Your task to perform on an android device: read, delete, or share a saved page in the chrome app Image 0: 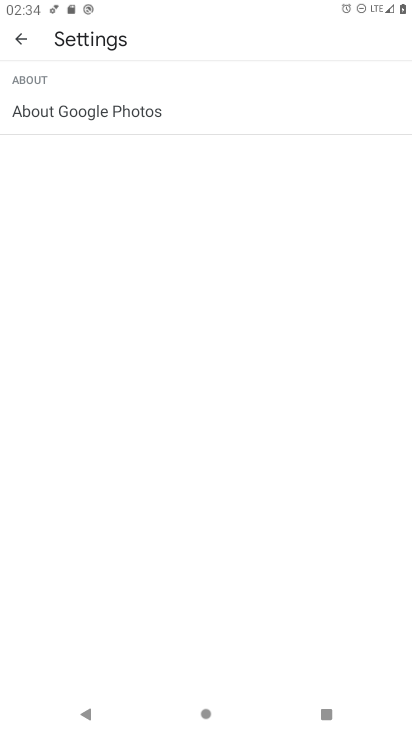
Step 0: press home button
Your task to perform on an android device: read, delete, or share a saved page in the chrome app Image 1: 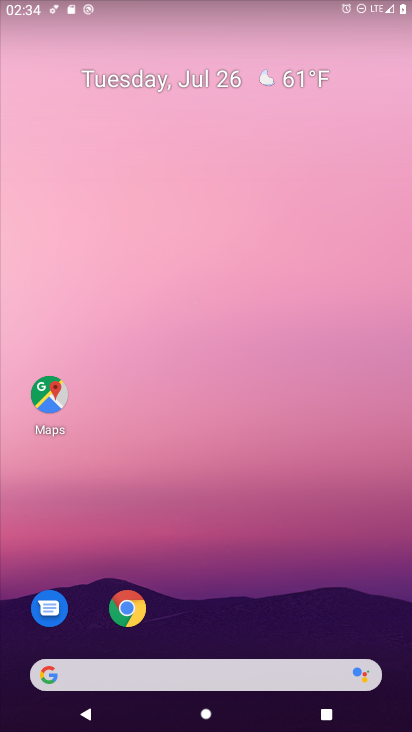
Step 1: click (135, 601)
Your task to perform on an android device: read, delete, or share a saved page in the chrome app Image 2: 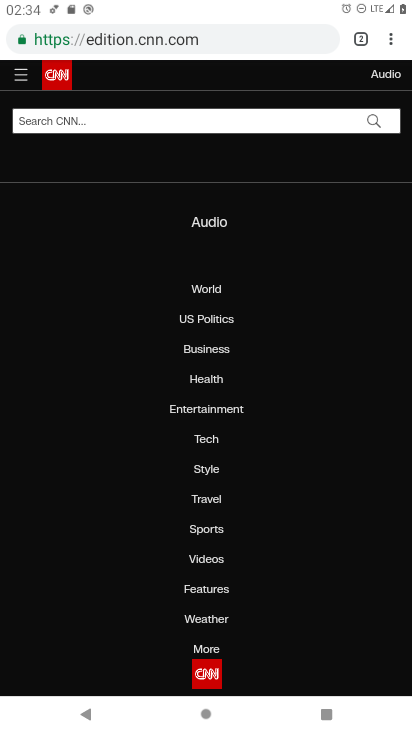
Step 2: click (370, 35)
Your task to perform on an android device: read, delete, or share a saved page in the chrome app Image 3: 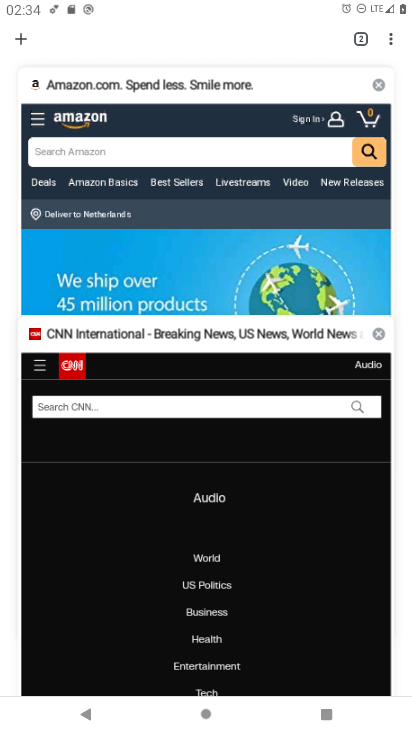
Step 3: click (23, 36)
Your task to perform on an android device: read, delete, or share a saved page in the chrome app Image 4: 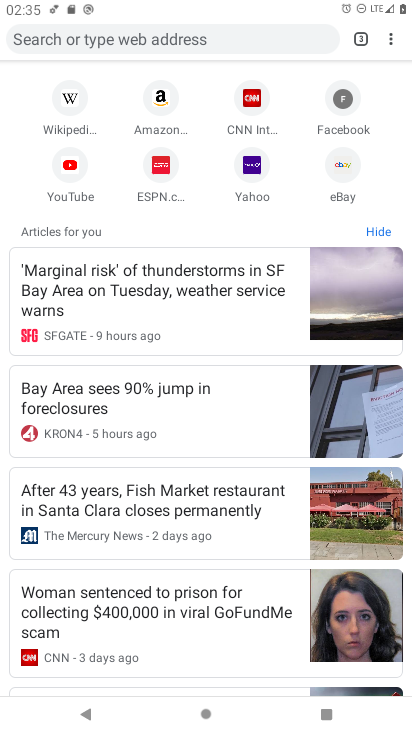
Step 4: click (251, 167)
Your task to perform on an android device: read, delete, or share a saved page in the chrome app Image 5: 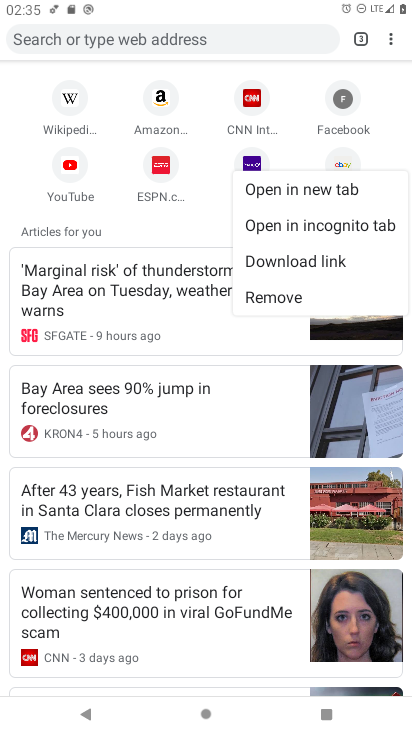
Step 5: click (277, 300)
Your task to perform on an android device: read, delete, or share a saved page in the chrome app Image 6: 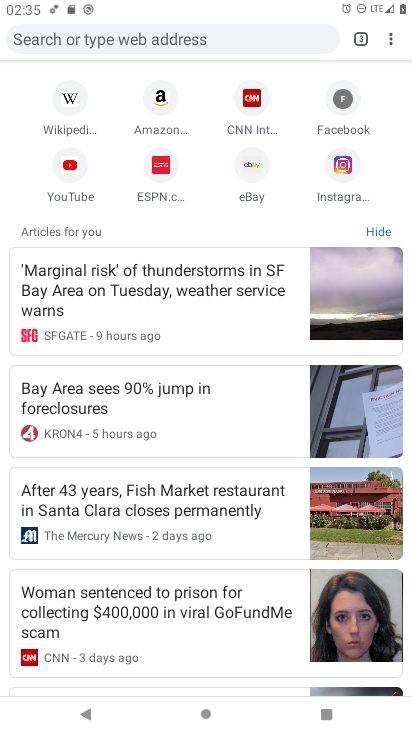
Step 6: task complete